Your task to perform on an android device: change the upload size in google photos Image 0: 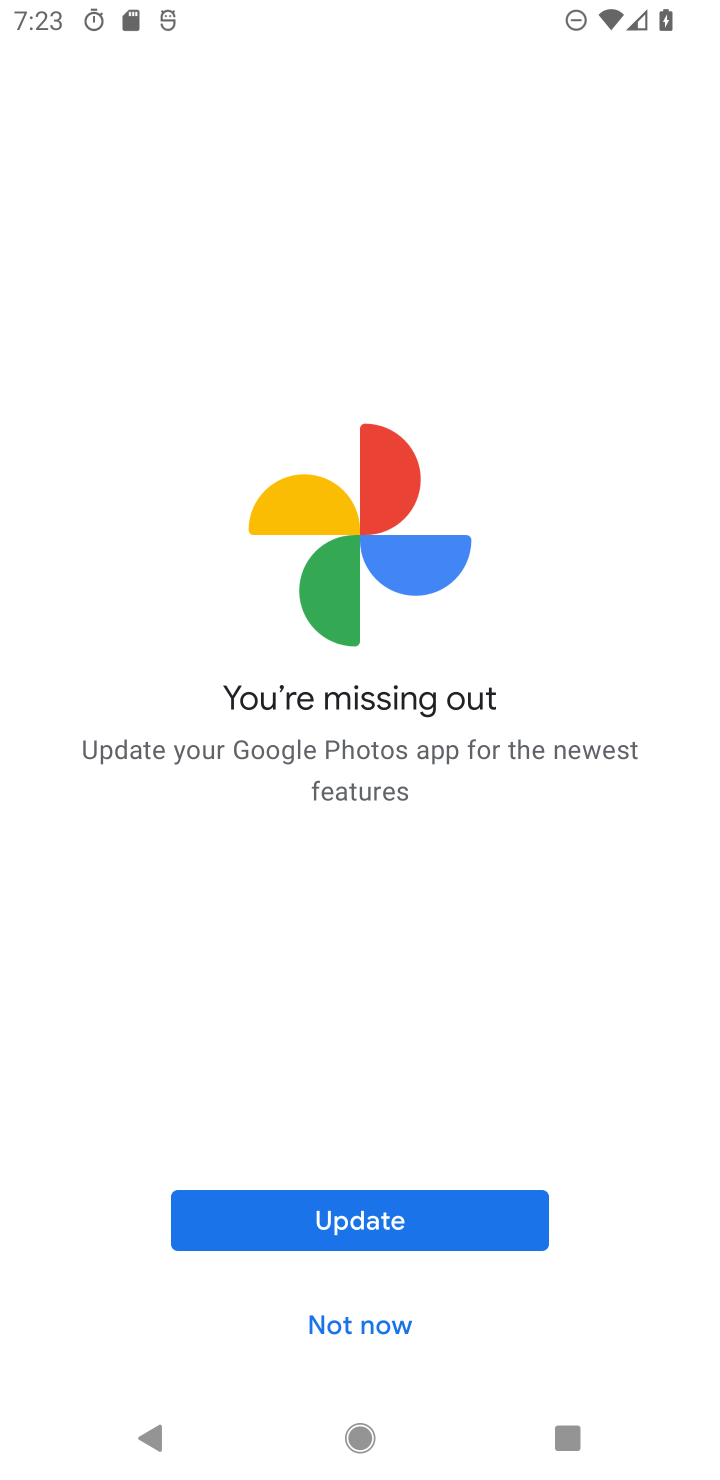
Step 0: click (384, 1223)
Your task to perform on an android device: change the upload size in google photos Image 1: 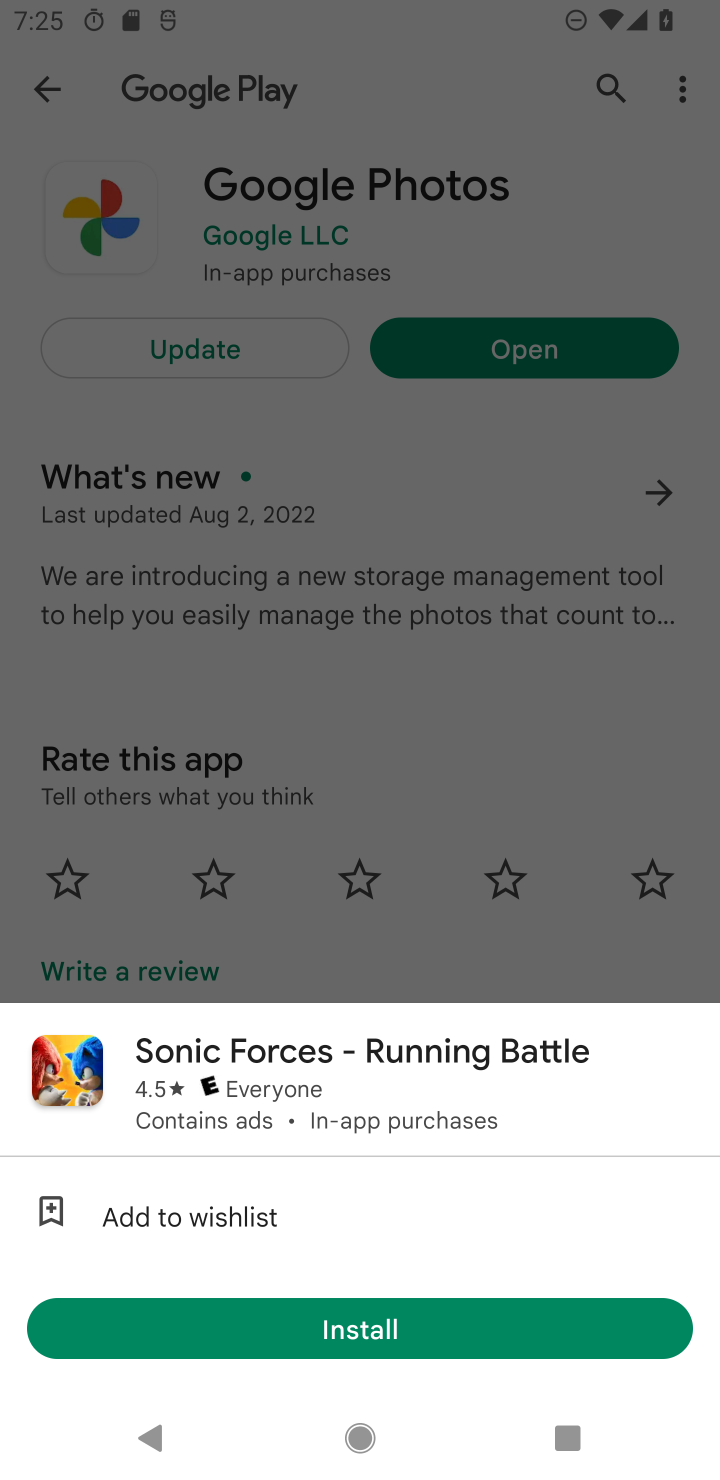
Step 1: click (369, 721)
Your task to perform on an android device: change the upload size in google photos Image 2: 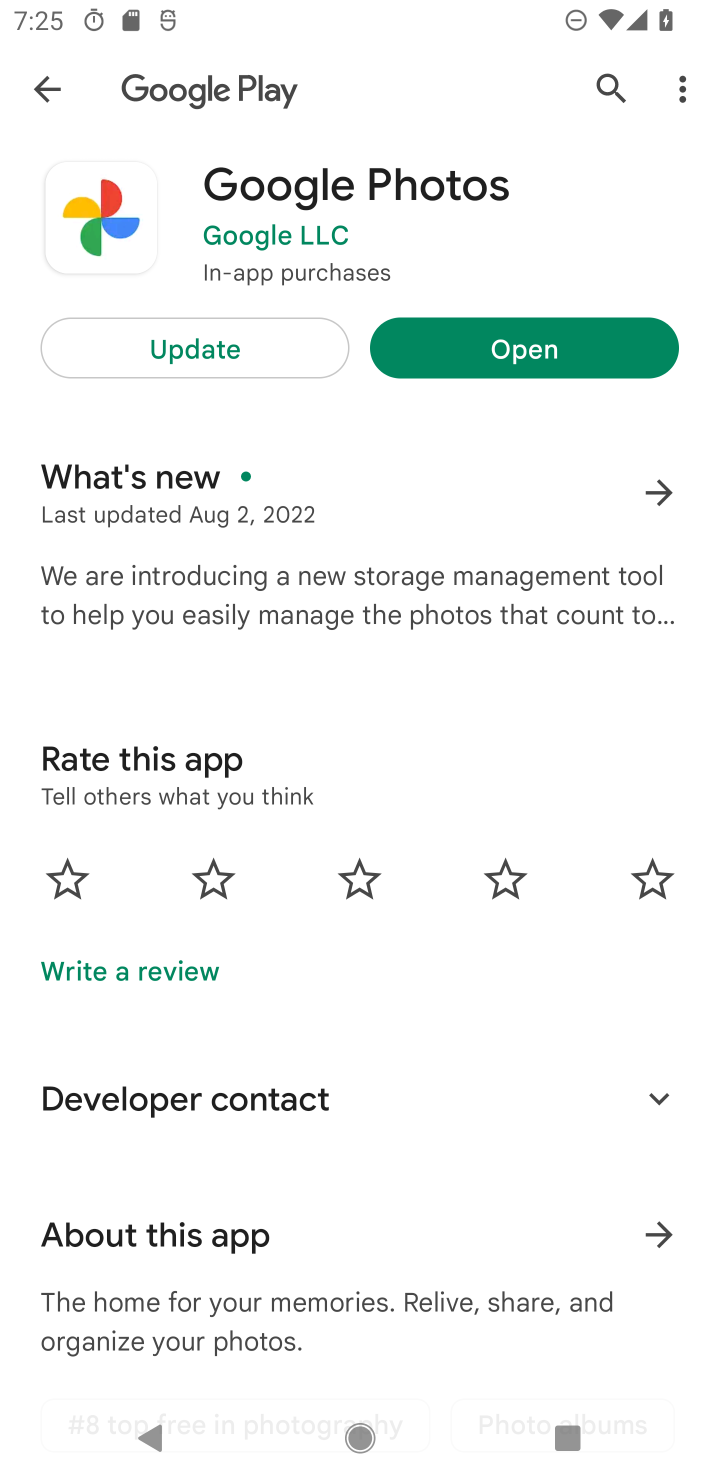
Step 2: press back button
Your task to perform on an android device: change the upload size in google photos Image 3: 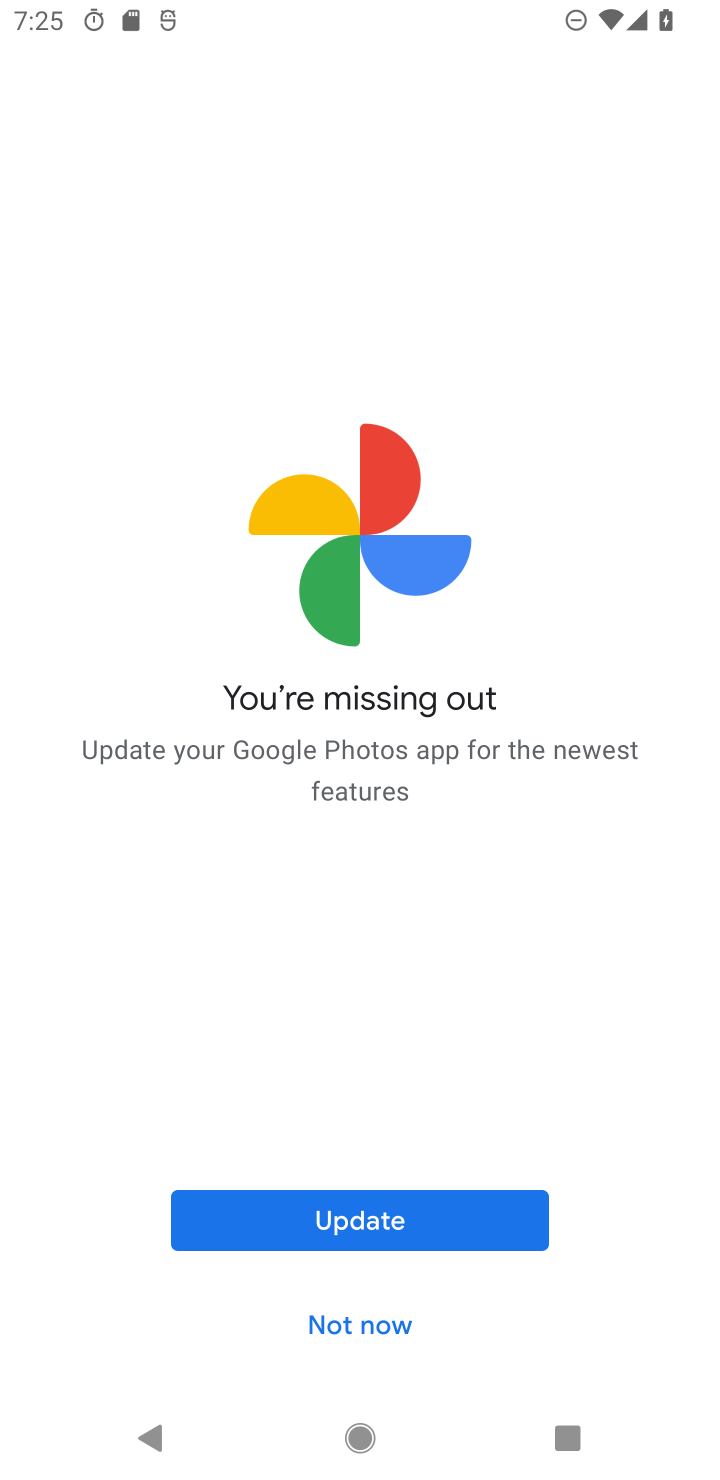
Step 3: click (366, 1321)
Your task to perform on an android device: change the upload size in google photos Image 4: 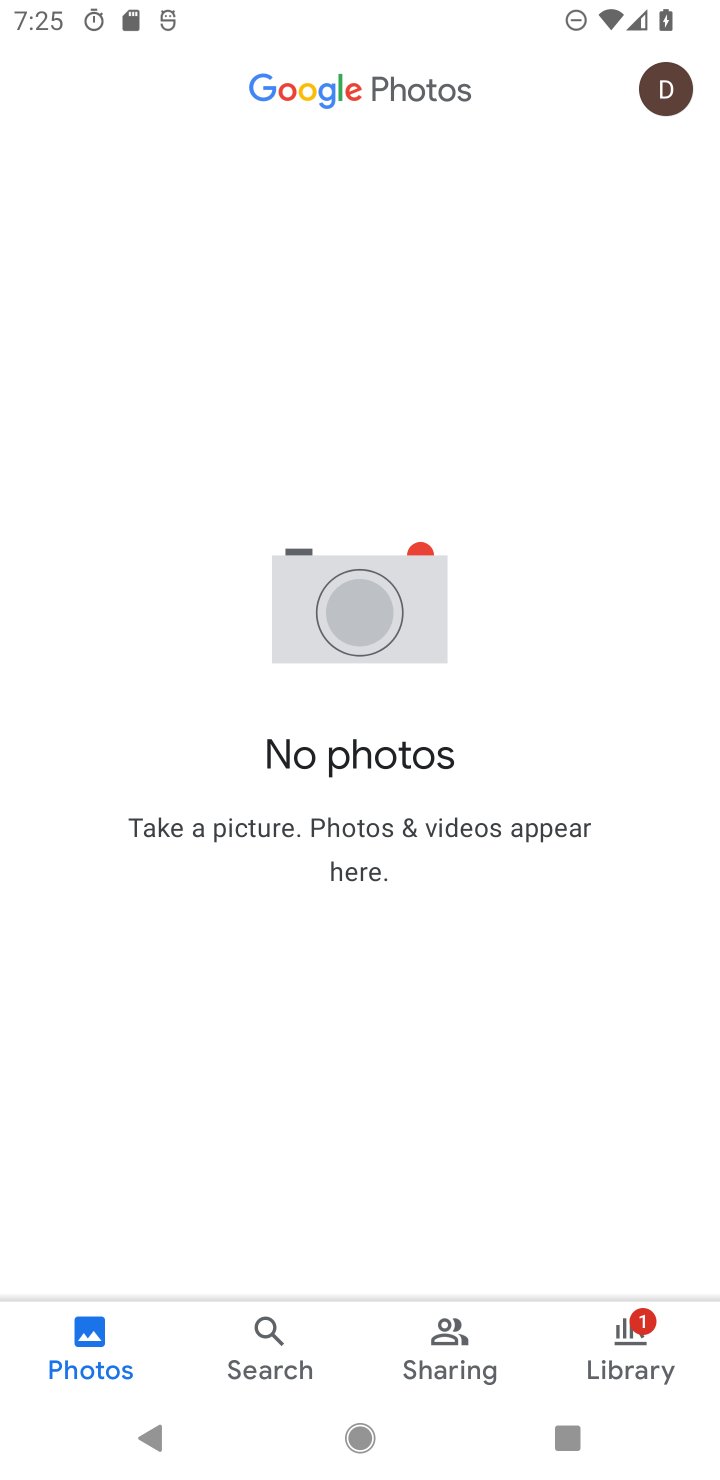
Step 4: click (675, 76)
Your task to perform on an android device: change the upload size in google photos Image 5: 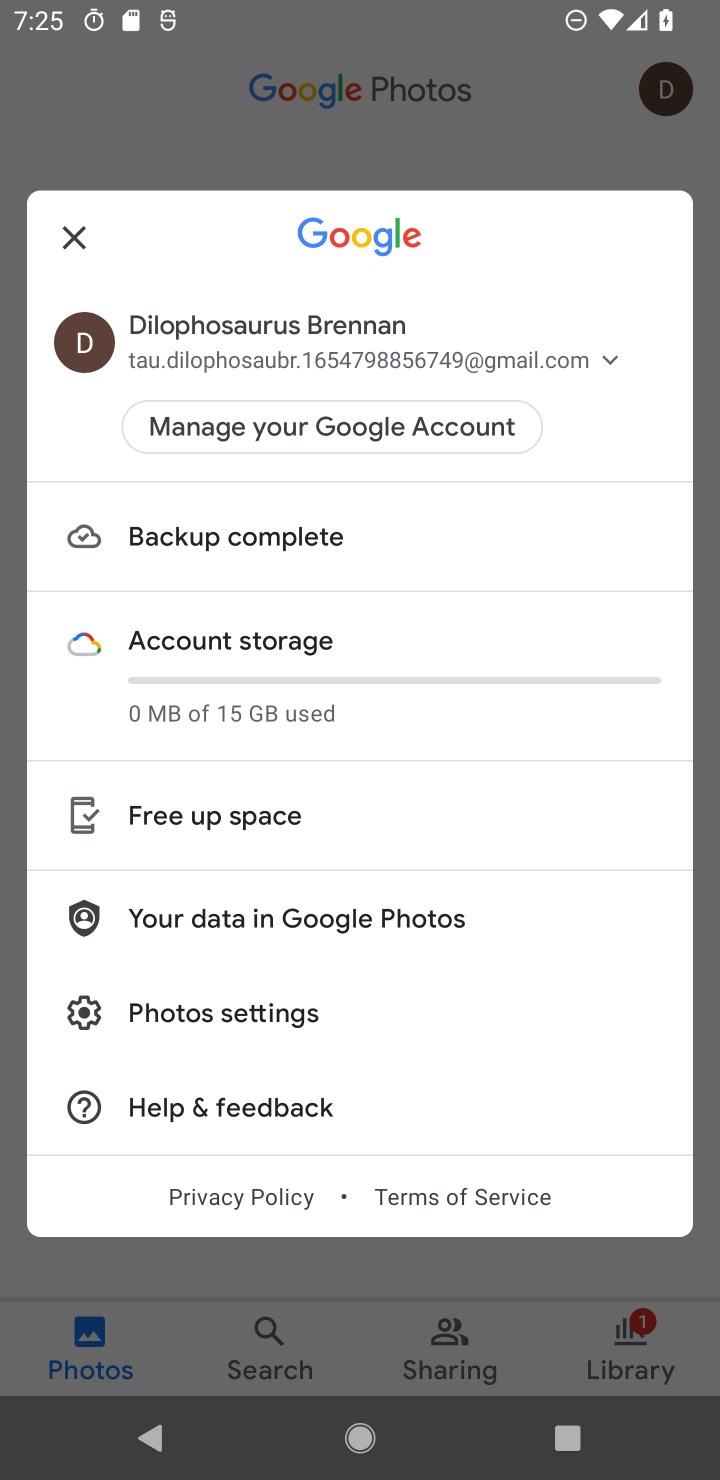
Step 5: click (224, 1032)
Your task to perform on an android device: change the upload size in google photos Image 6: 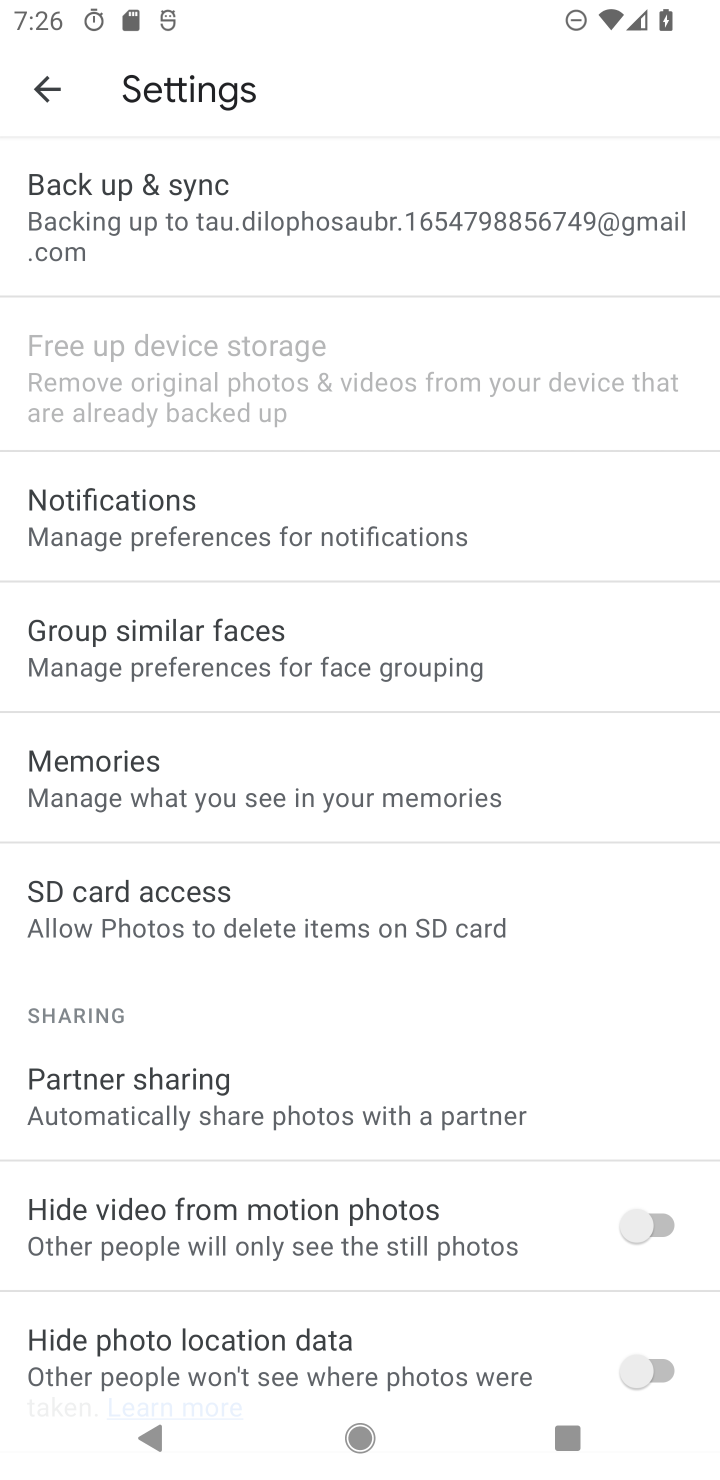
Step 6: click (151, 209)
Your task to perform on an android device: change the upload size in google photos Image 7: 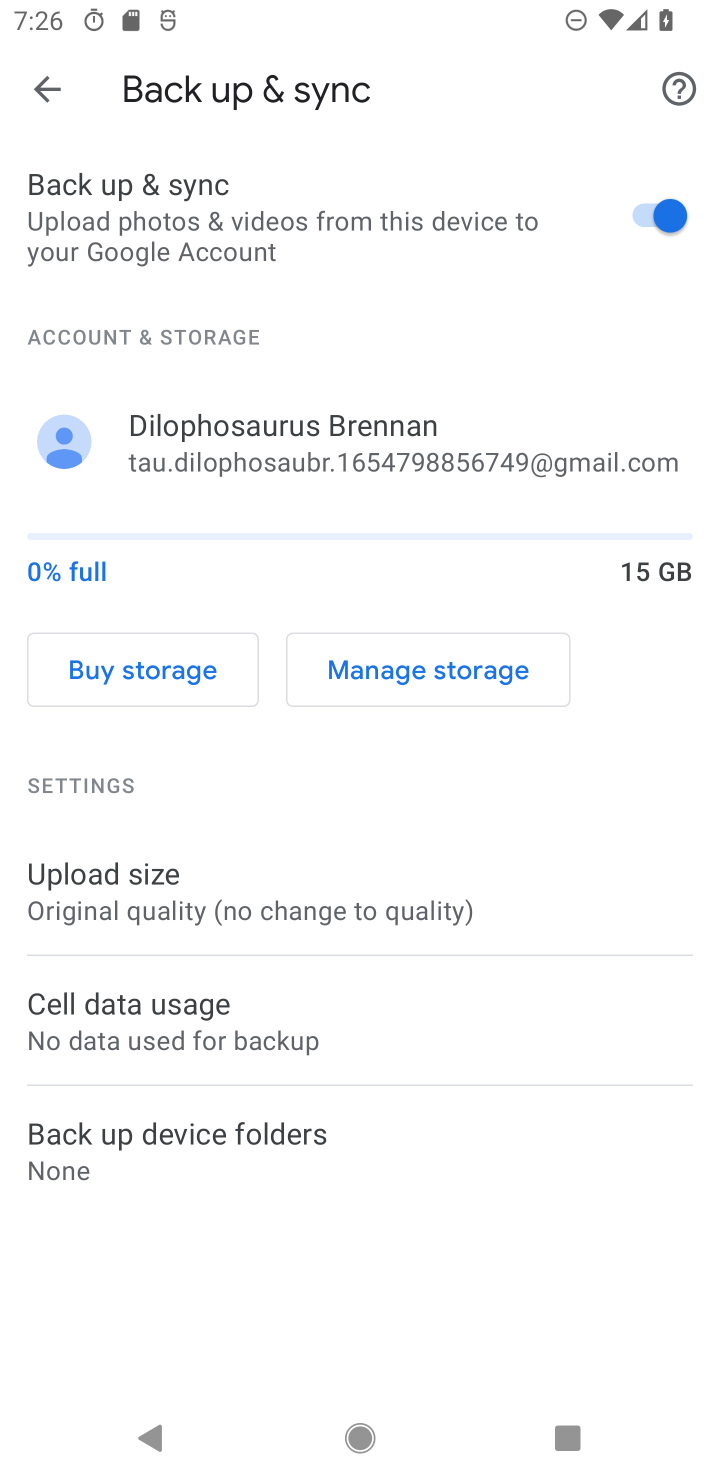
Step 7: click (204, 899)
Your task to perform on an android device: change the upload size in google photos Image 8: 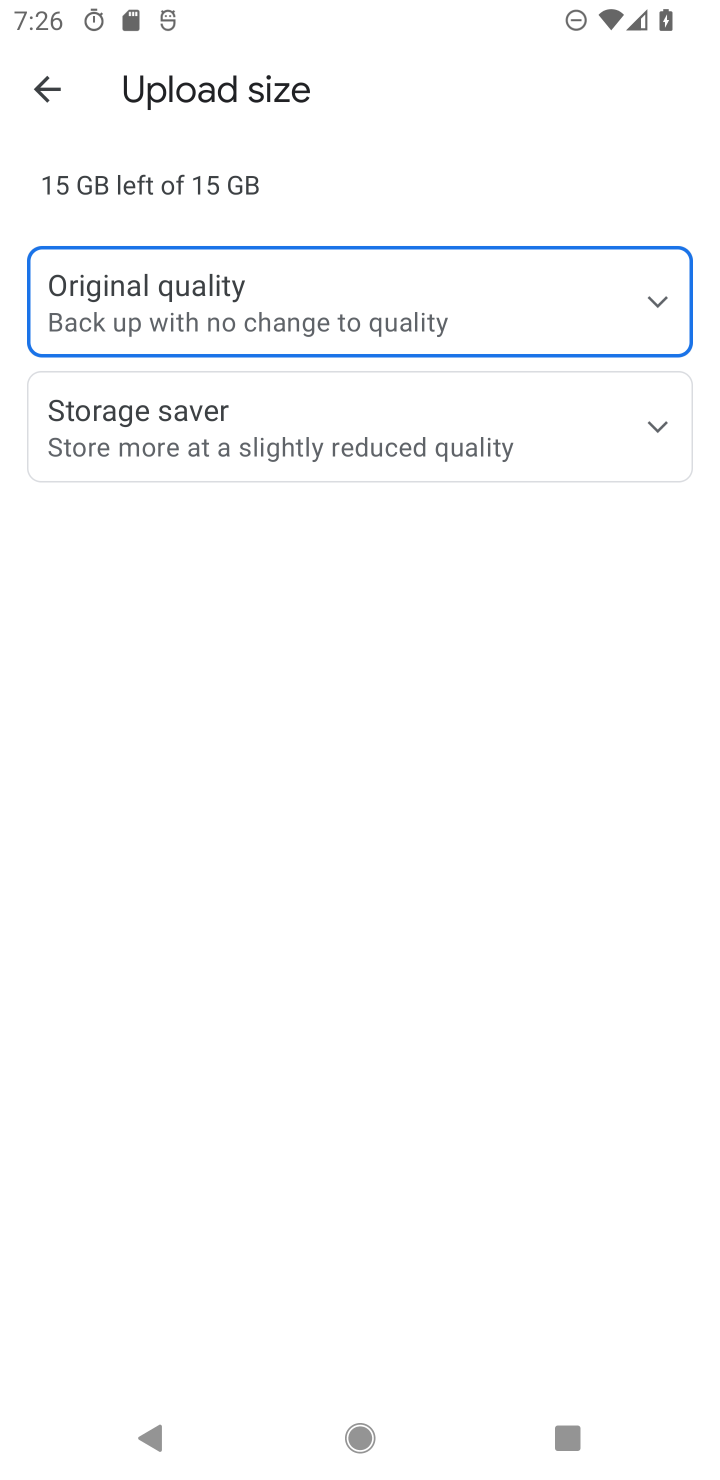
Step 8: click (226, 434)
Your task to perform on an android device: change the upload size in google photos Image 9: 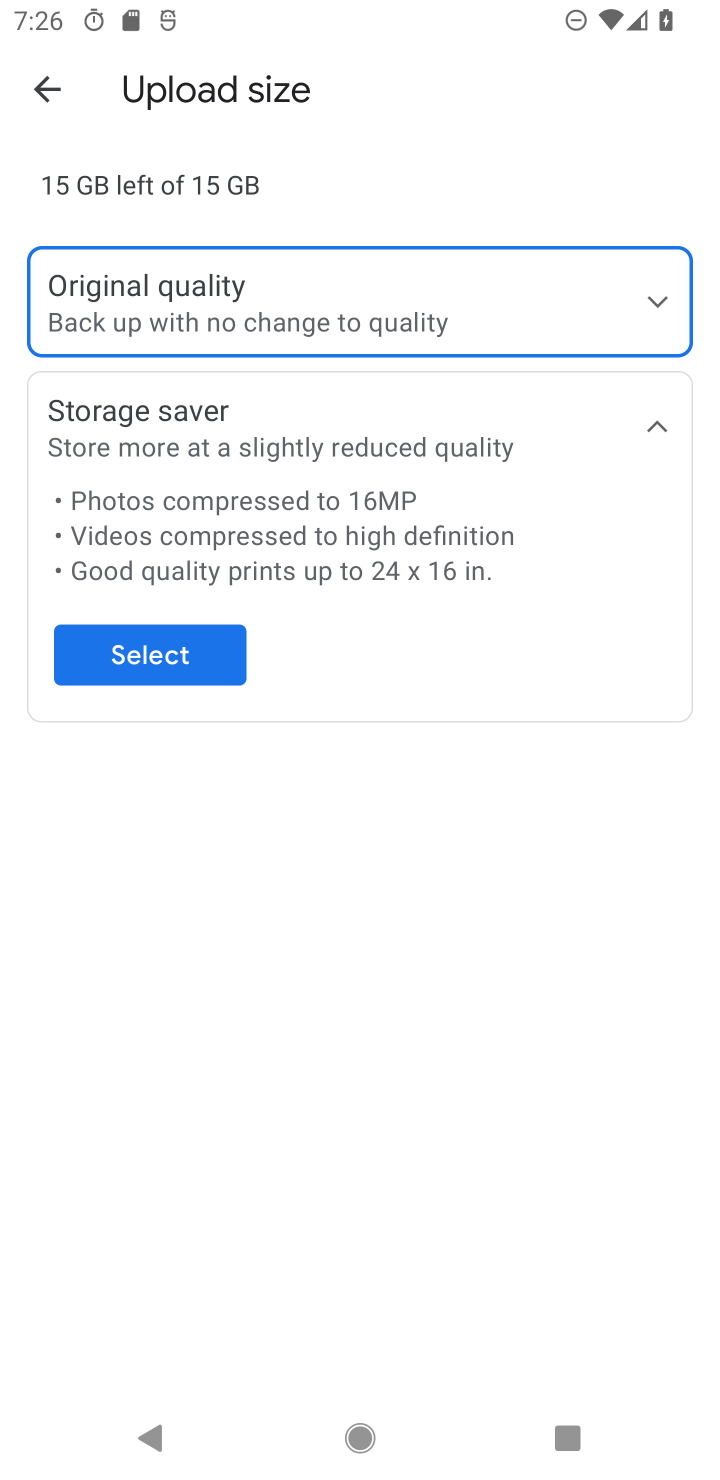
Step 9: click (103, 650)
Your task to perform on an android device: change the upload size in google photos Image 10: 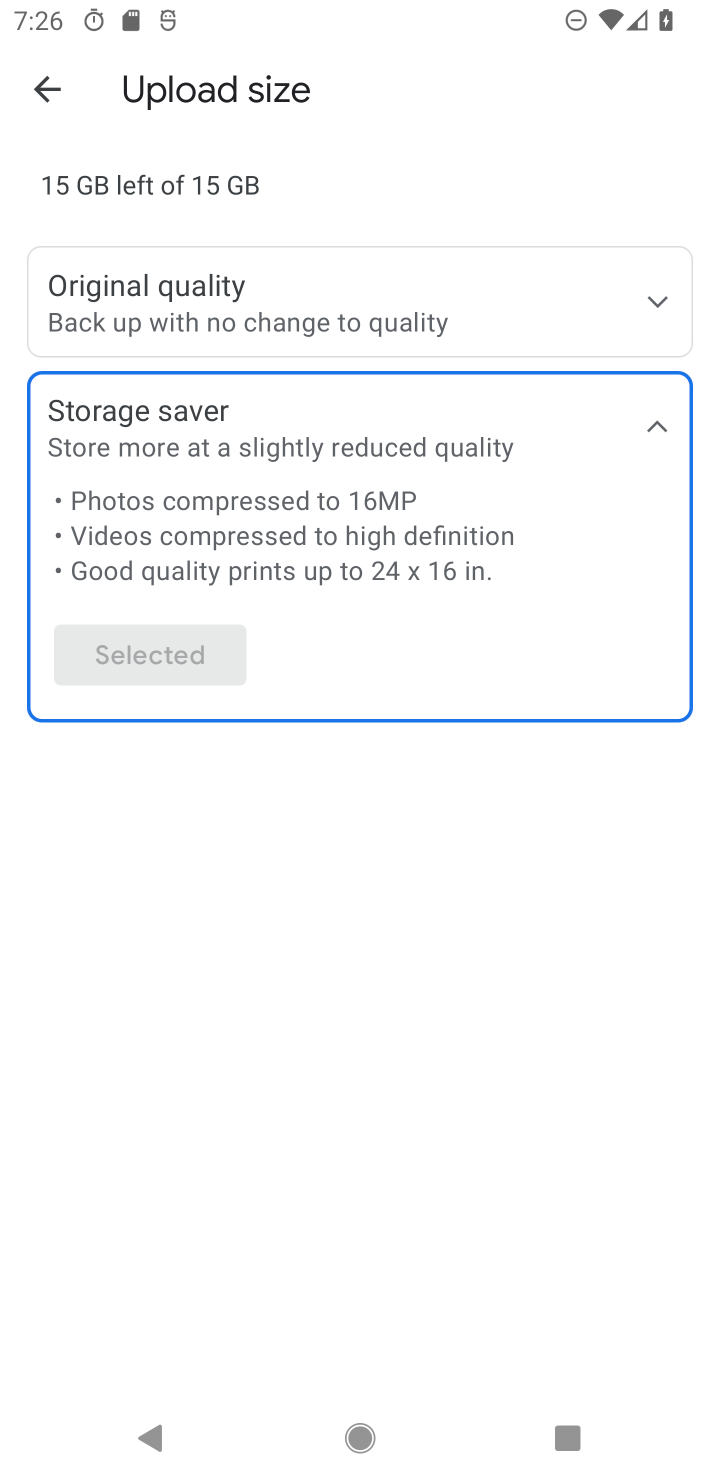
Step 10: task complete